Your task to perform on an android device: delete location history Image 0: 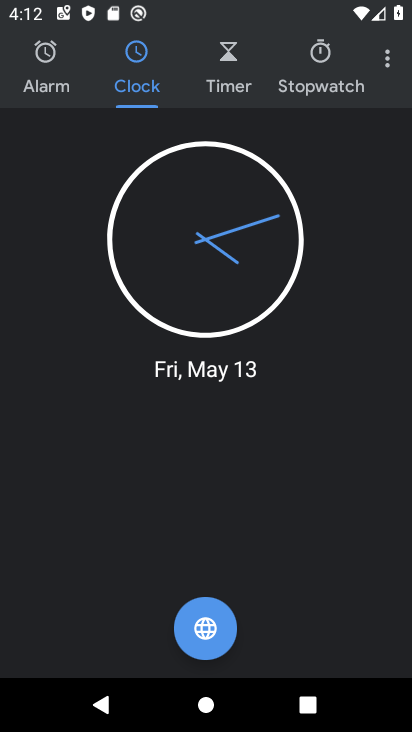
Step 0: press home button
Your task to perform on an android device: delete location history Image 1: 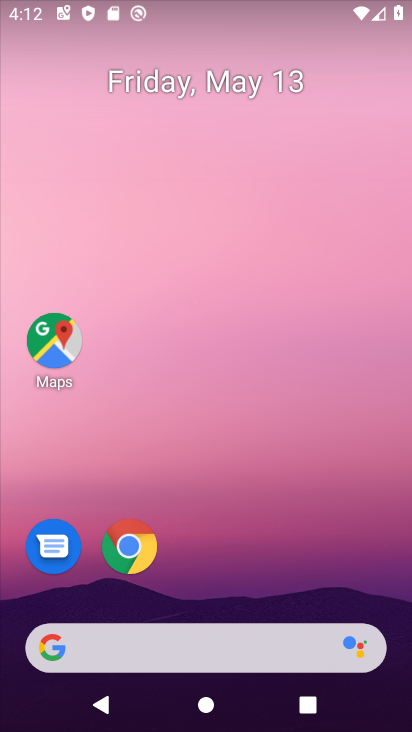
Step 1: drag from (225, 545) to (254, 10)
Your task to perform on an android device: delete location history Image 2: 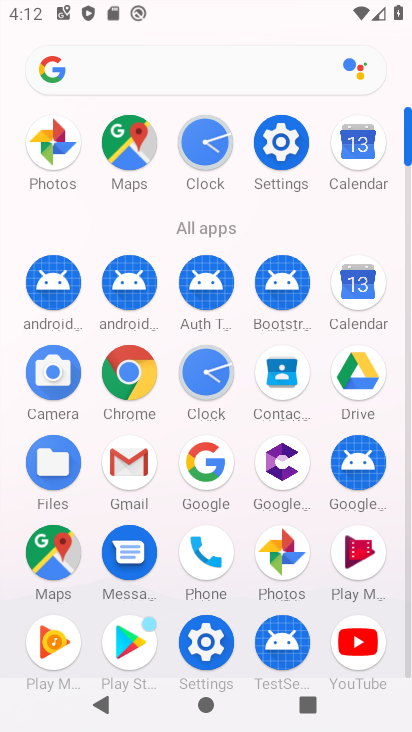
Step 2: click (24, 552)
Your task to perform on an android device: delete location history Image 3: 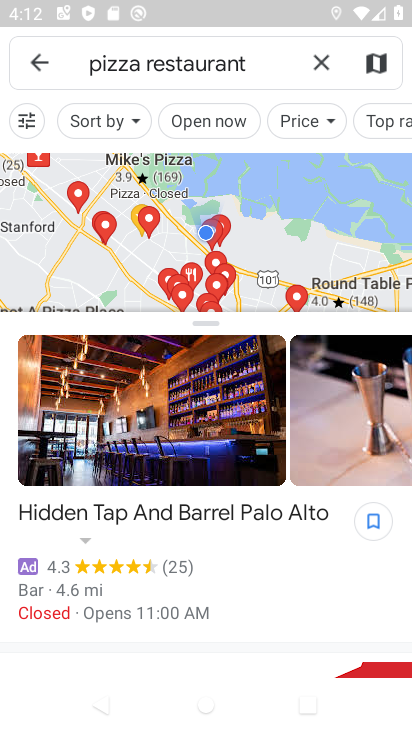
Step 3: click (41, 63)
Your task to perform on an android device: delete location history Image 4: 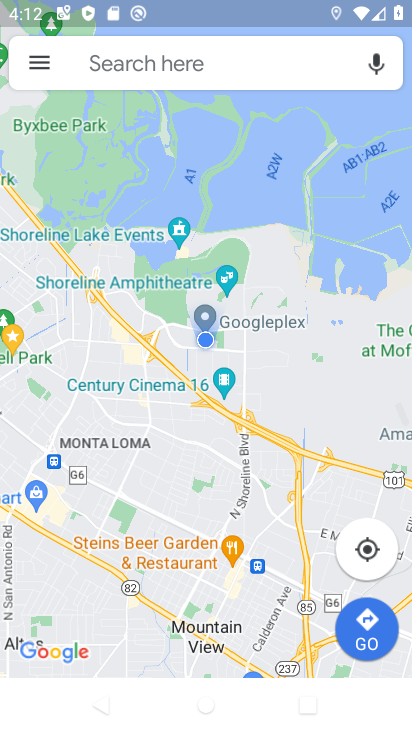
Step 4: click (48, 65)
Your task to perform on an android device: delete location history Image 5: 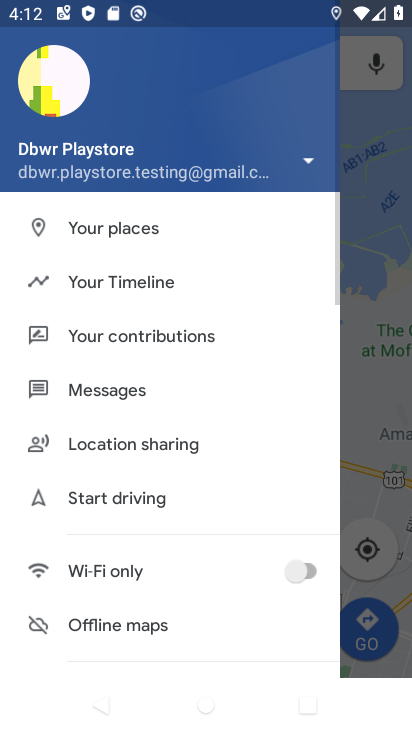
Step 5: click (125, 280)
Your task to perform on an android device: delete location history Image 6: 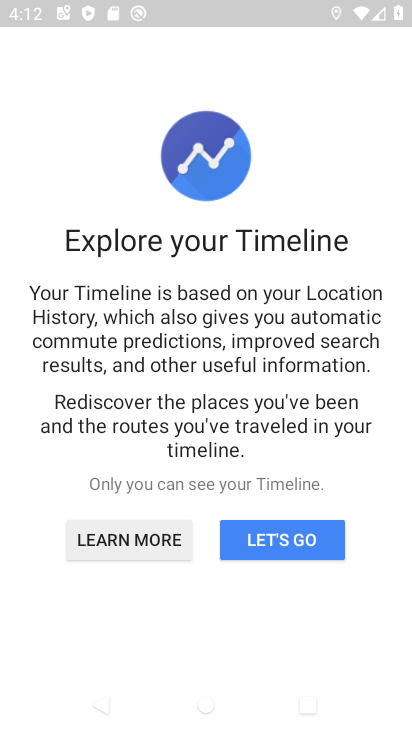
Step 6: click (256, 539)
Your task to perform on an android device: delete location history Image 7: 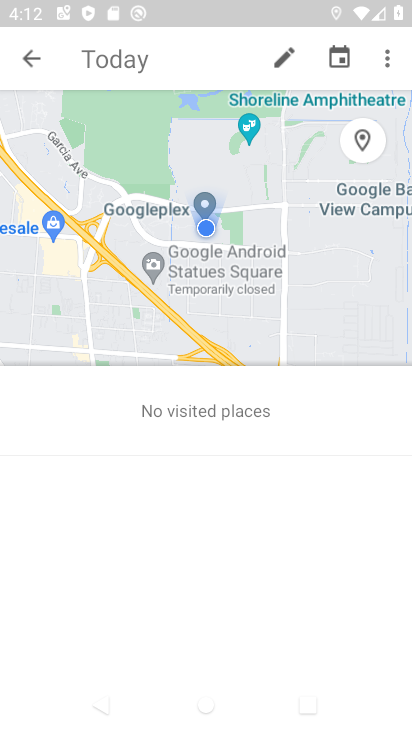
Step 7: click (387, 58)
Your task to perform on an android device: delete location history Image 8: 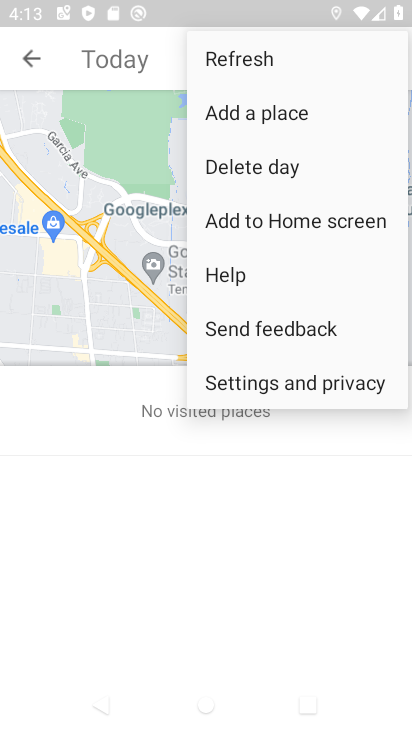
Step 8: click (259, 380)
Your task to perform on an android device: delete location history Image 9: 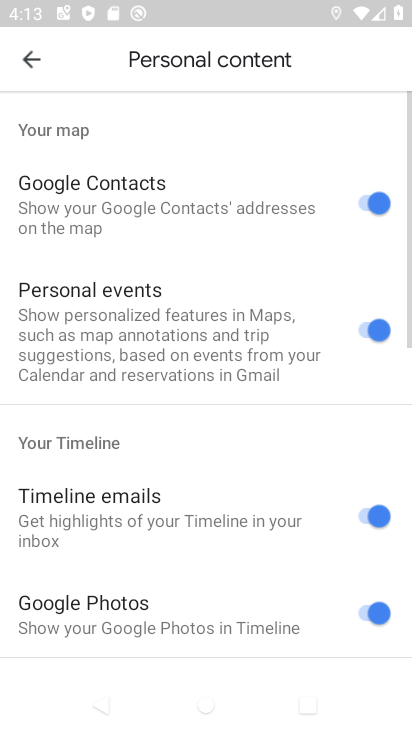
Step 9: drag from (177, 573) to (211, 174)
Your task to perform on an android device: delete location history Image 10: 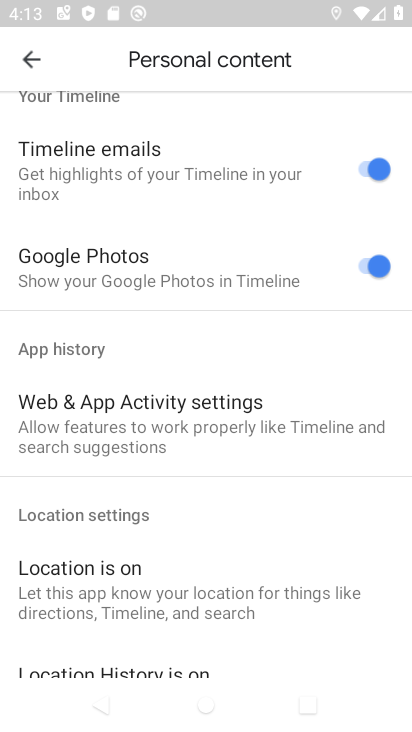
Step 10: drag from (166, 599) to (214, 166)
Your task to perform on an android device: delete location history Image 11: 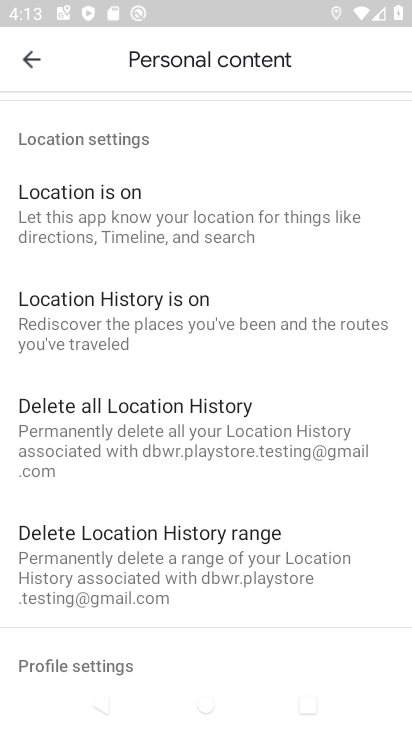
Step 11: click (172, 427)
Your task to perform on an android device: delete location history Image 12: 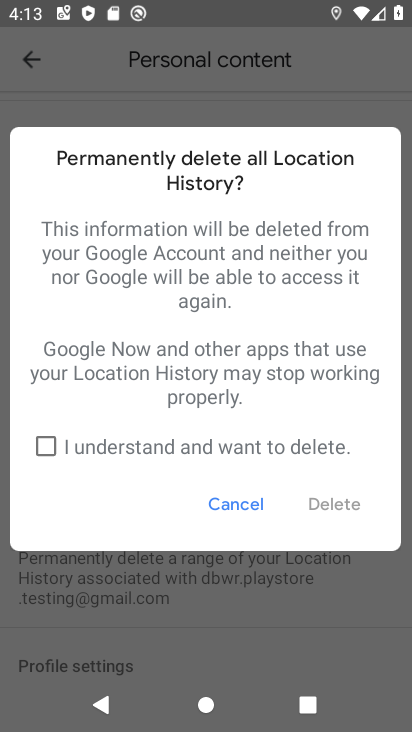
Step 12: click (48, 435)
Your task to perform on an android device: delete location history Image 13: 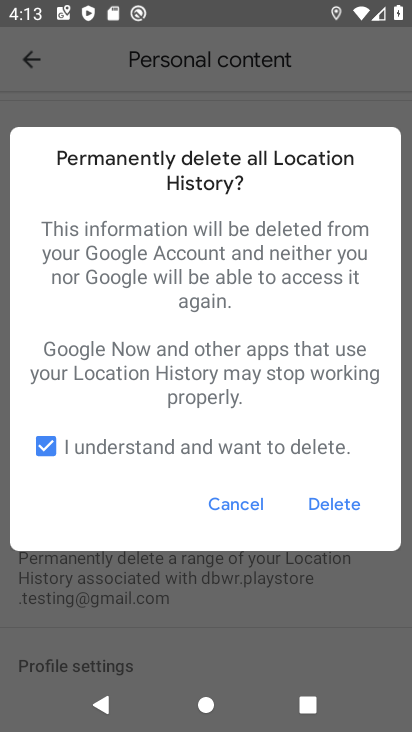
Step 13: click (338, 507)
Your task to perform on an android device: delete location history Image 14: 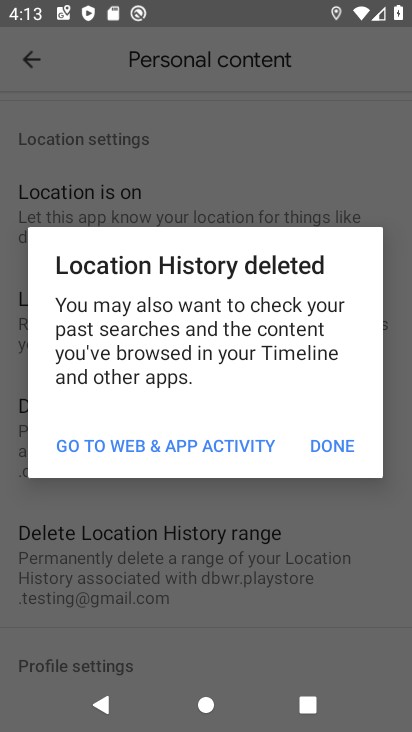
Step 14: click (321, 444)
Your task to perform on an android device: delete location history Image 15: 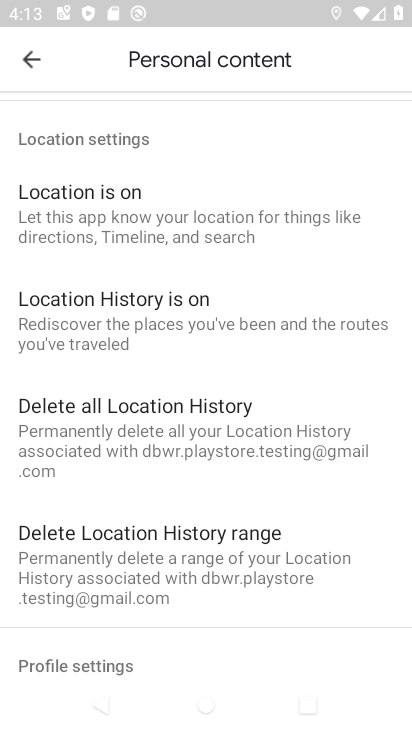
Step 15: task complete